Your task to perform on an android device: Search for seafood restaurants on Google Maps Image 0: 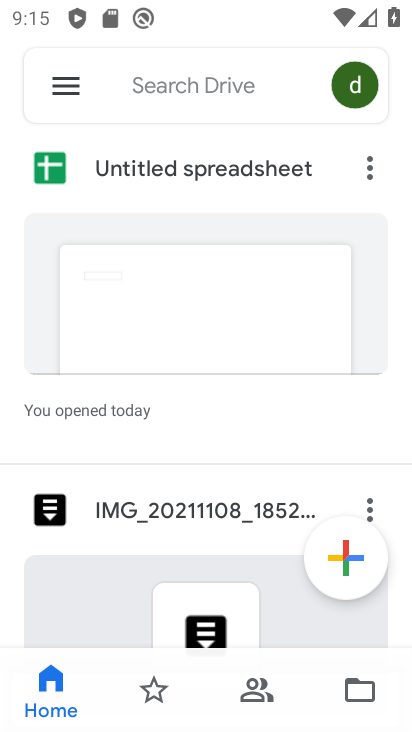
Step 0: press home button
Your task to perform on an android device: Search for seafood restaurants on Google Maps Image 1: 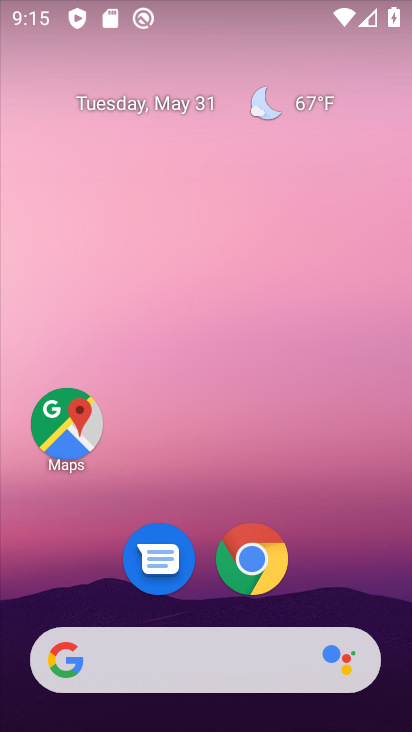
Step 1: click (69, 425)
Your task to perform on an android device: Search for seafood restaurants on Google Maps Image 2: 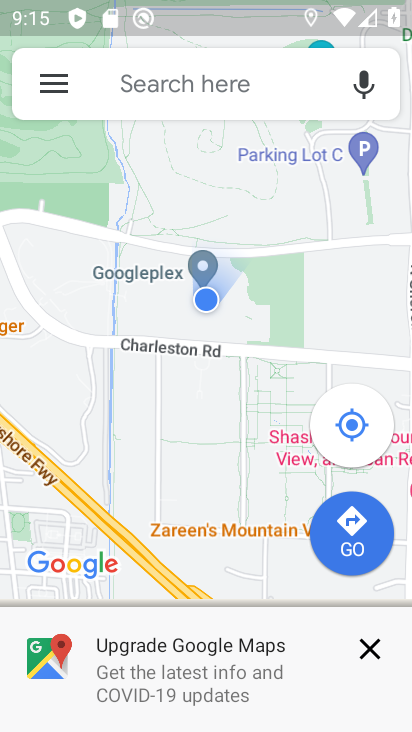
Step 2: click (189, 85)
Your task to perform on an android device: Search for seafood restaurants on Google Maps Image 3: 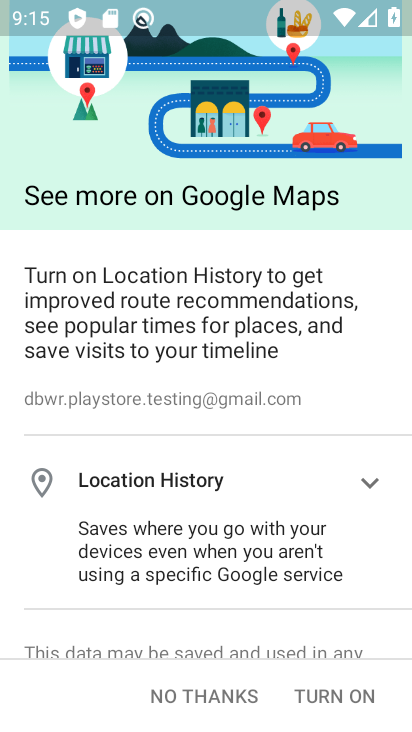
Step 3: click (209, 703)
Your task to perform on an android device: Search for seafood restaurants on Google Maps Image 4: 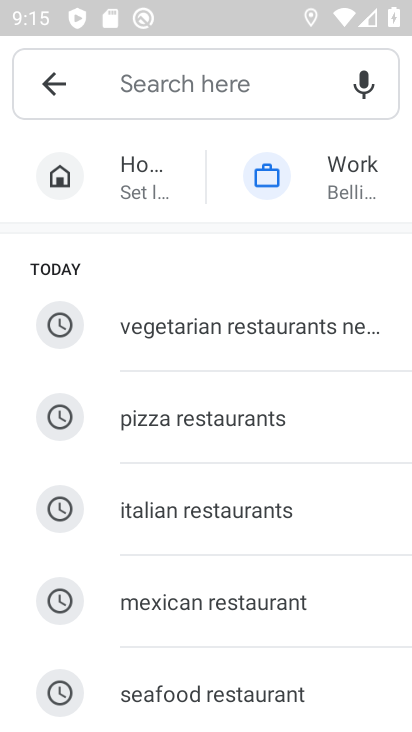
Step 4: click (188, 692)
Your task to perform on an android device: Search for seafood restaurants on Google Maps Image 5: 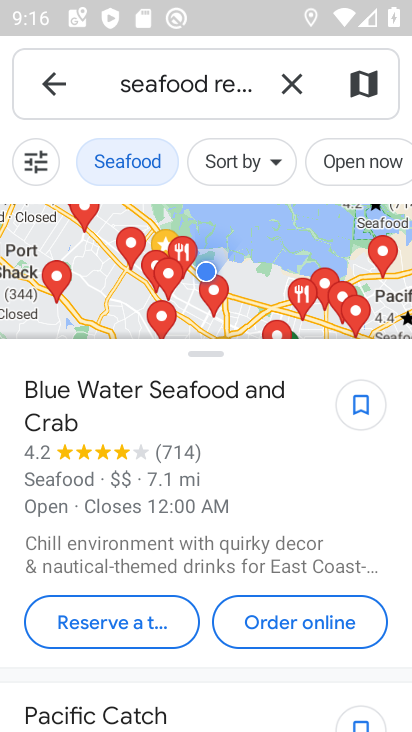
Step 5: task complete